Your task to perform on an android device: find photos in the google photos app Image 0: 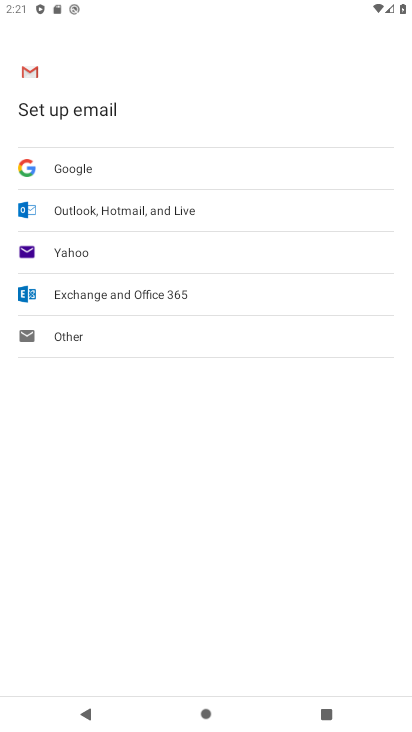
Step 0: press home button
Your task to perform on an android device: find photos in the google photos app Image 1: 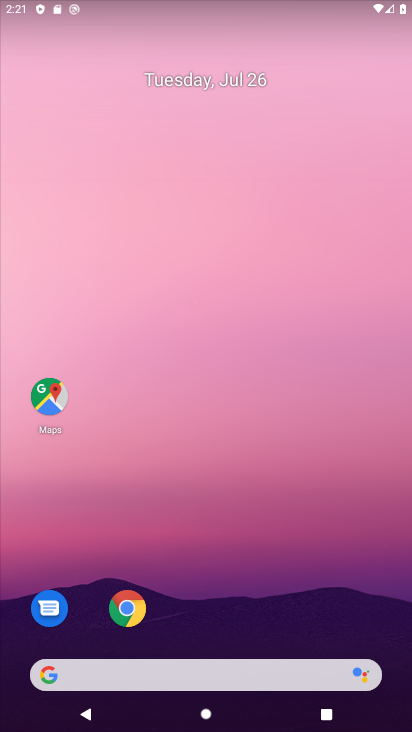
Step 1: drag from (253, 594) to (306, 114)
Your task to perform on an android device: find photos in the google photos app Image 2: 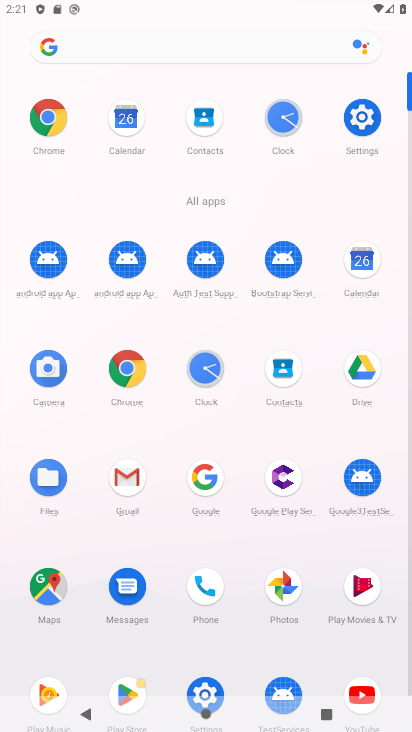
Step 2: click (287, 591)
Your task to perform on an android device: find photos in the google photos app Image 3: 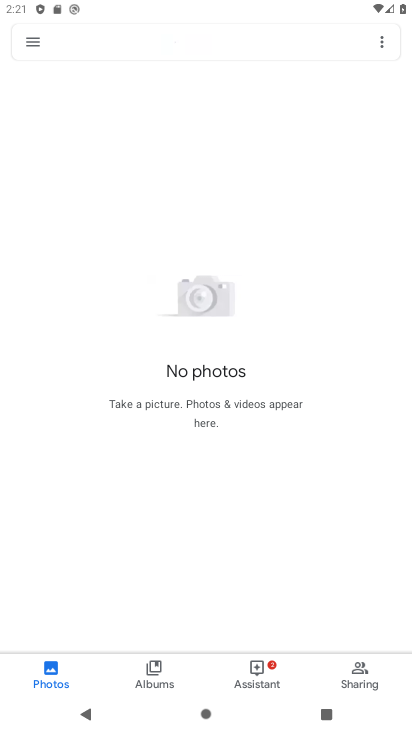
Step 3: task complete